Your task to perform on an android device: turn on improve location accuracy Image 0: 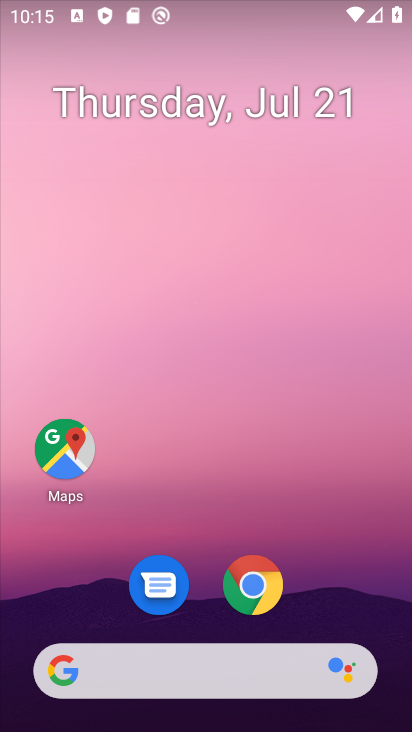
Step 0: drag from (325, 569) to (349, 101)
Your task to perform on an android device: turn on improve location accuracy Image 1: 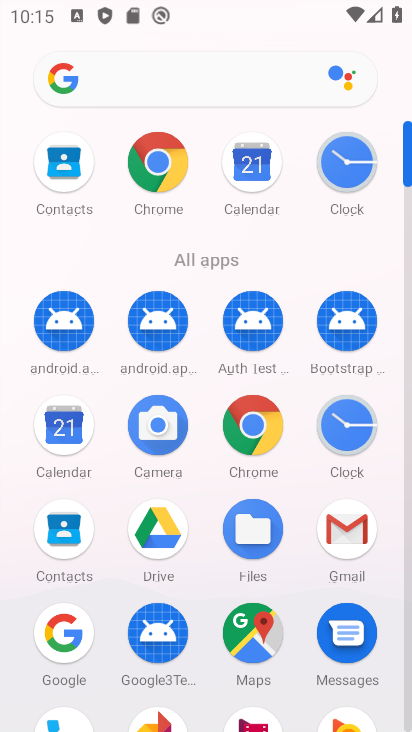
Step 1: drag from (199, 490) to (237, 151)
Your task to perform on an android device: turn on improve location accuracy Image 2: 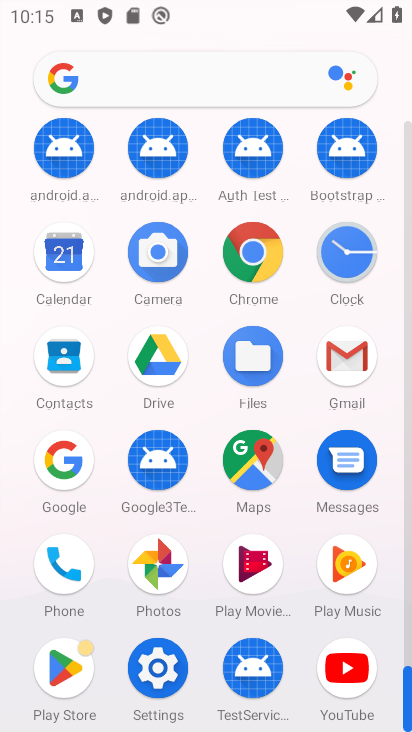
Step 2: click (160, 665)
Your task to perform on an android device: turn on improve location accuracy Image 3: 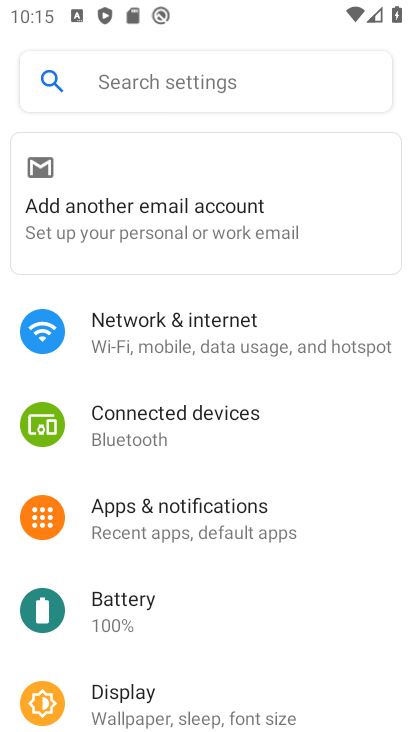
Step 3: drag from (219, 603) to (220, 123)
Your task to perform on an android device: turn on improve location accuracy Image 4: 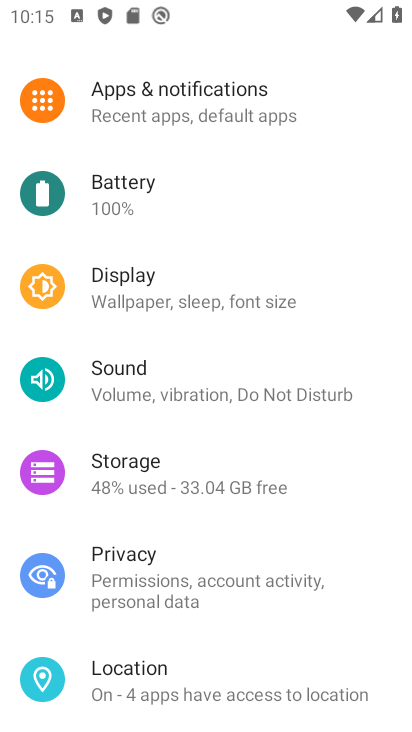
Step 4: click (134, 668)
Your task to perform on an android device: turn on improve location accuracy Image 5: 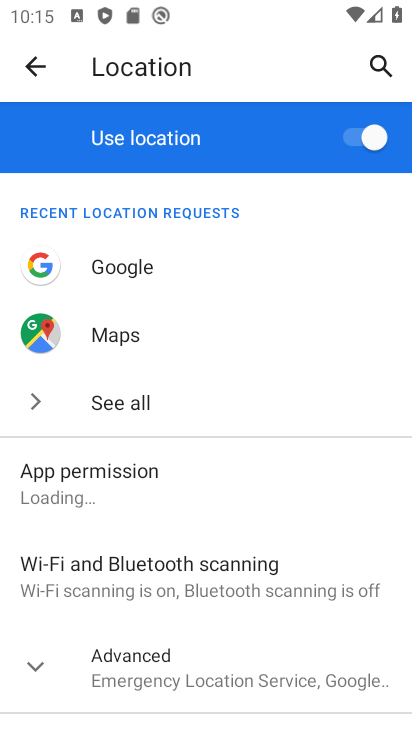
Step 5: drag from (216, 554) to (247, 210)
Your task to perform on an android device: turn on improve location accuracy Image 6: 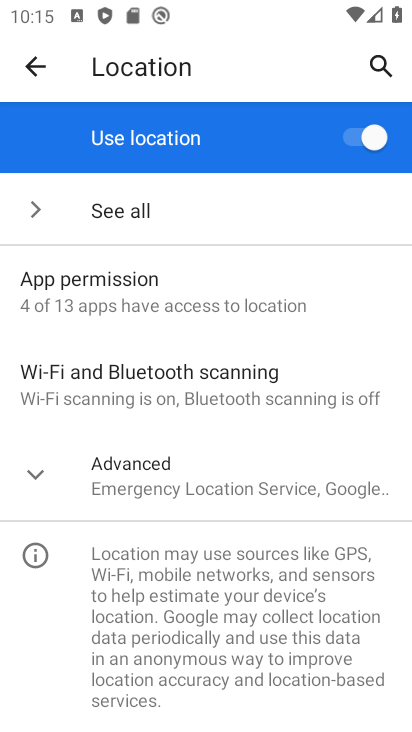
Step 6: click (28, 465)
Your task to perform on an android device: turn on improve location accuracy Image 7: 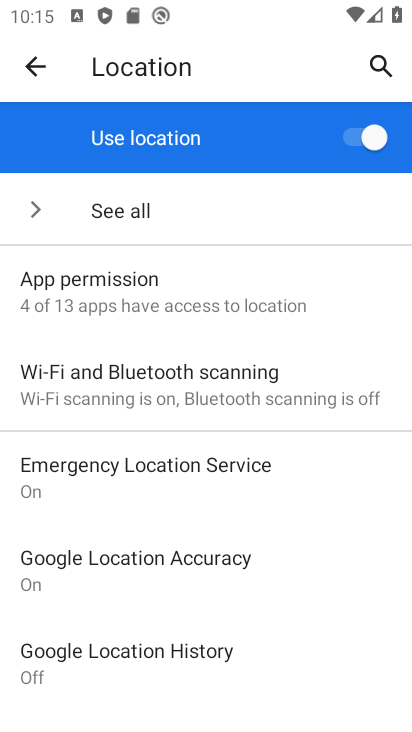
Step 7: click (193, 563)
Your task to perform on an android device: turn on improve location accuracy Image 8: 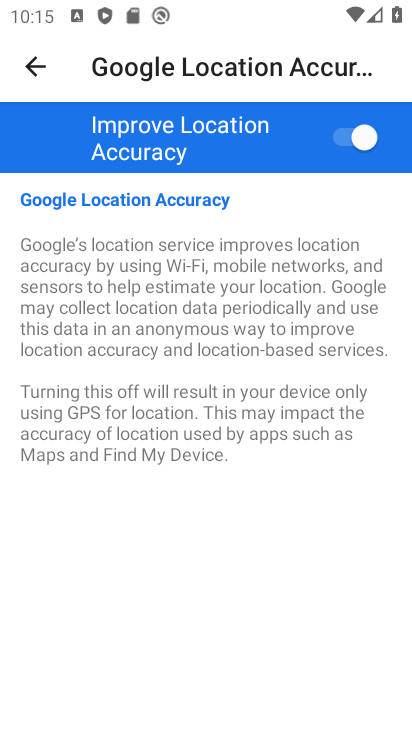
Step 8: task complete